Your task to perform on an android device: Go to notification settings Image 0: 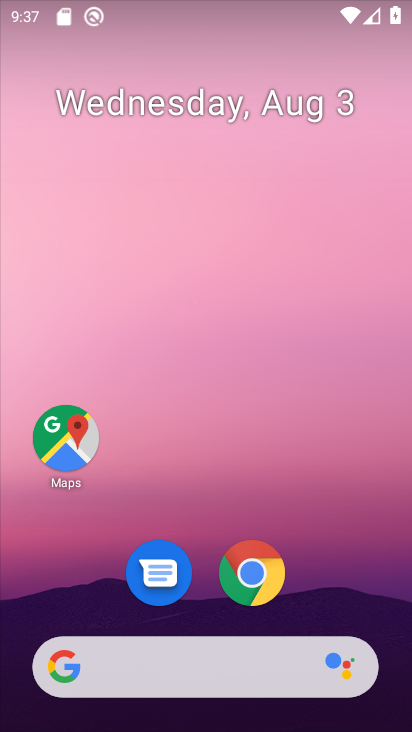
Step 0: drag from (186, 670) to (176, 164)
Your task to perform on an android device: Go to notification settings Image 1: 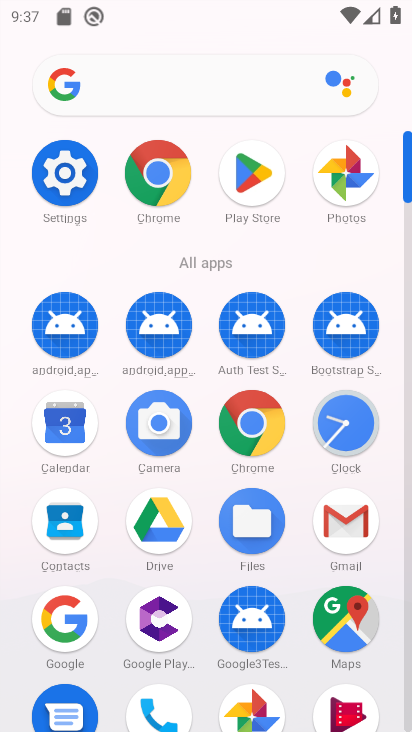
Step 1: click (56, 188)
Your task to perform on an android device: Go to notification settings Image 2: 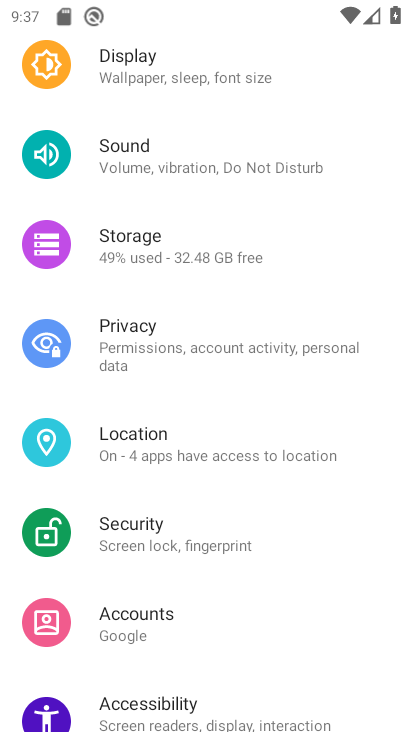
Step 2: drag from (208, 383) to (230, 486)
Your task to perform on an android device: Go to notification settings Image 3: 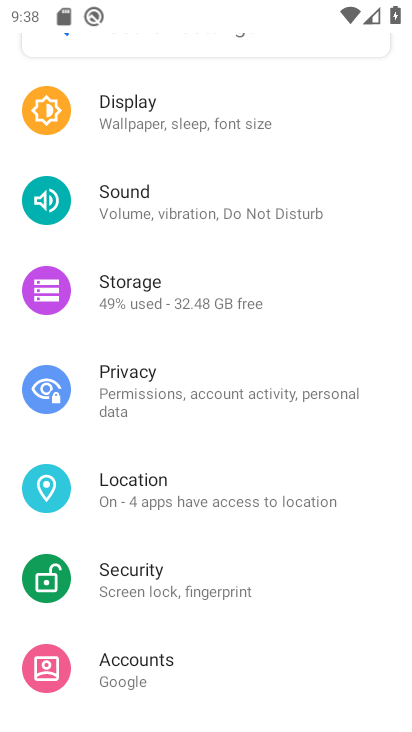
Step 3: drag from (135, 187) to (188, 542)
Your task to perform on an android device: Go to notification settings Image 4: 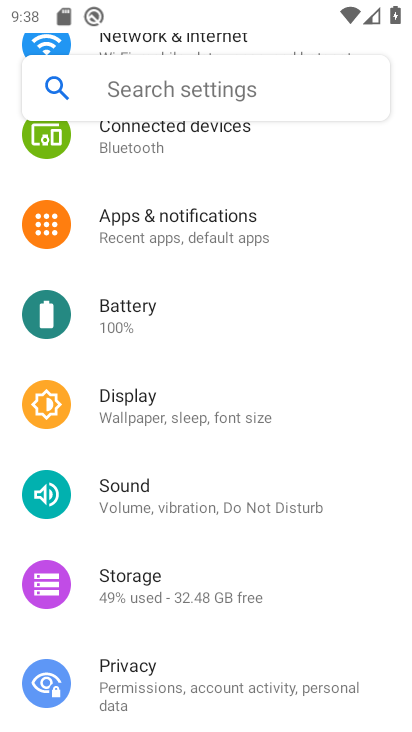
Step 4: click (139, 217)
Your task to perform on an android device: Go to notification settings Image 5: 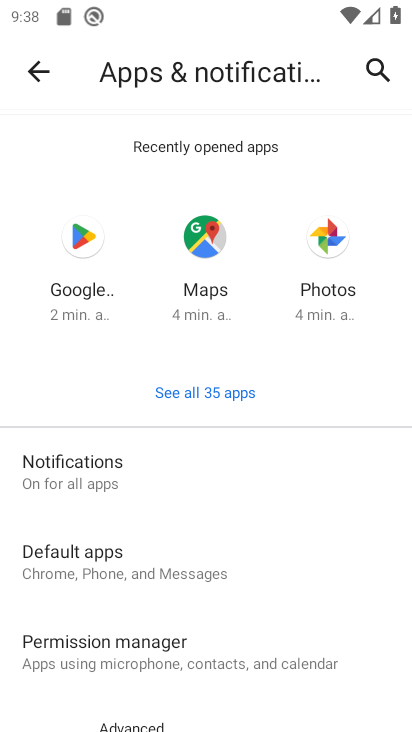
Step 5: task complete